Your task to perform on an android device: open a bookmark in the chrome app Image 0: 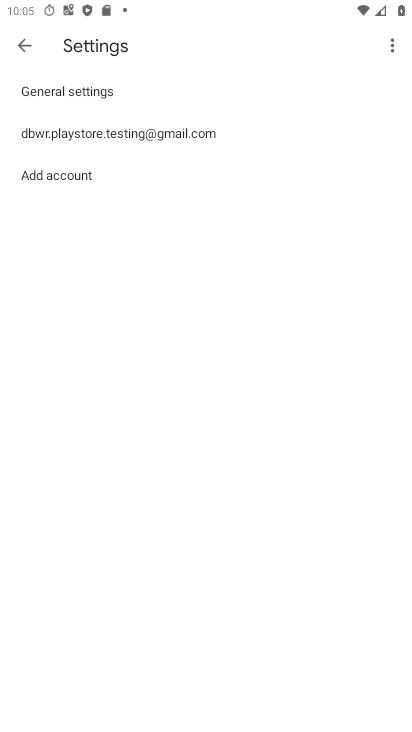
Step 0: press home button
Your task to perform on an android device: open a bookmark in the chrome app Image 1: 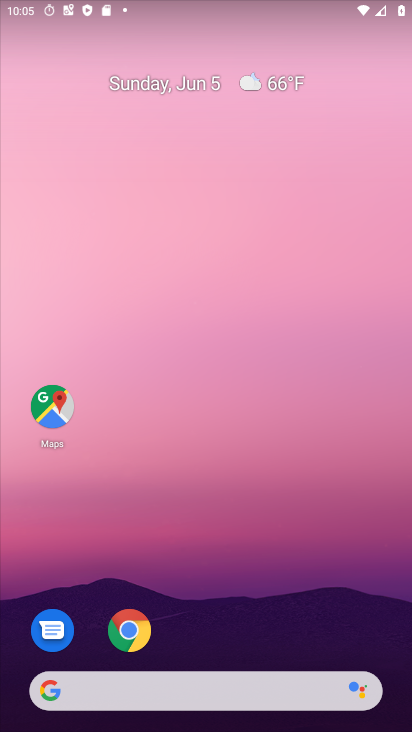
Step 1: click (134, 632)
Your task to perform on an android device: open a bookmark in the chrome app Image 2: 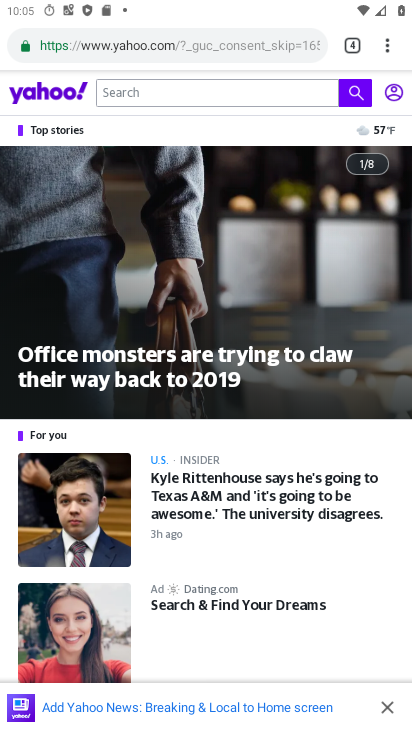
Step 2: click (388, 48)
Your task to perform on an android device: open a bookmark in the chrome app Image 3: 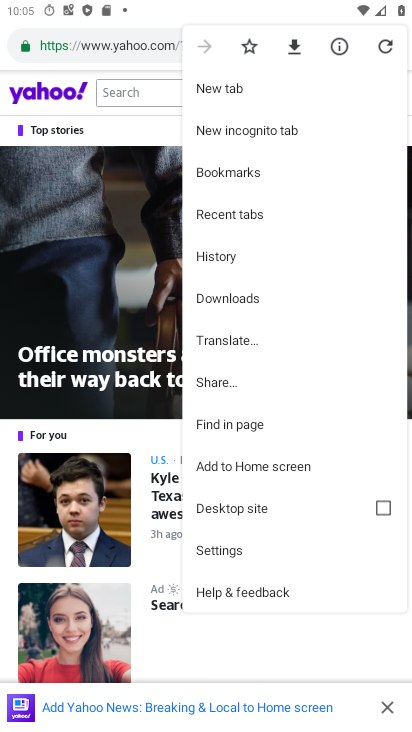
Step 3: click (246, 171)
Your task to perform on an android device: open a bookmark in the chrome app Image 4: 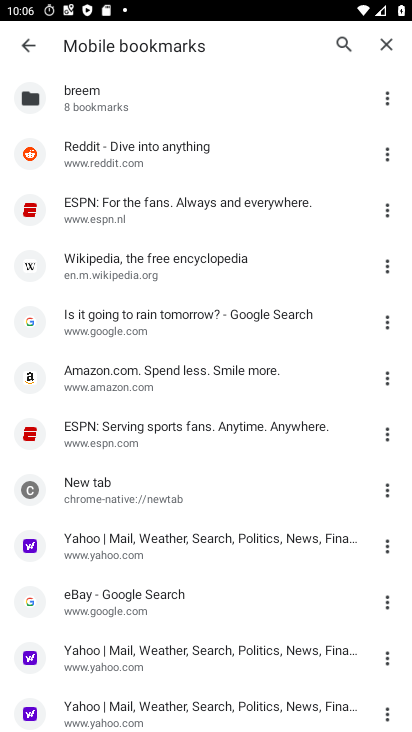
Step 4: click (186, 198)
Your task to perform on an android device: open a bookmark in the chrome app Image 5: 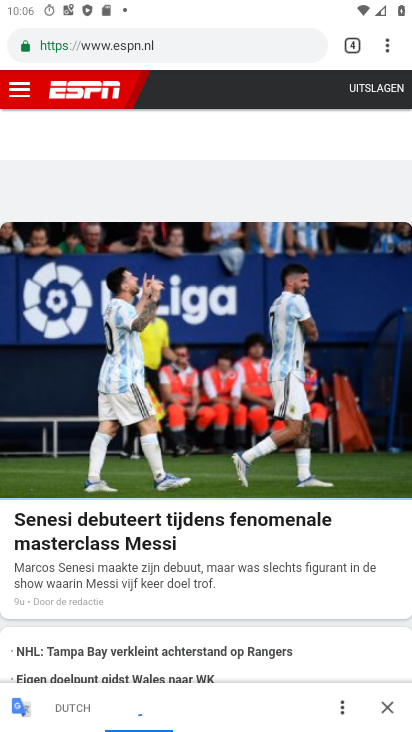
Step 5: task complete